Your task to perform on an android device: How do I get to the nearest Verizon Store? Image 0: 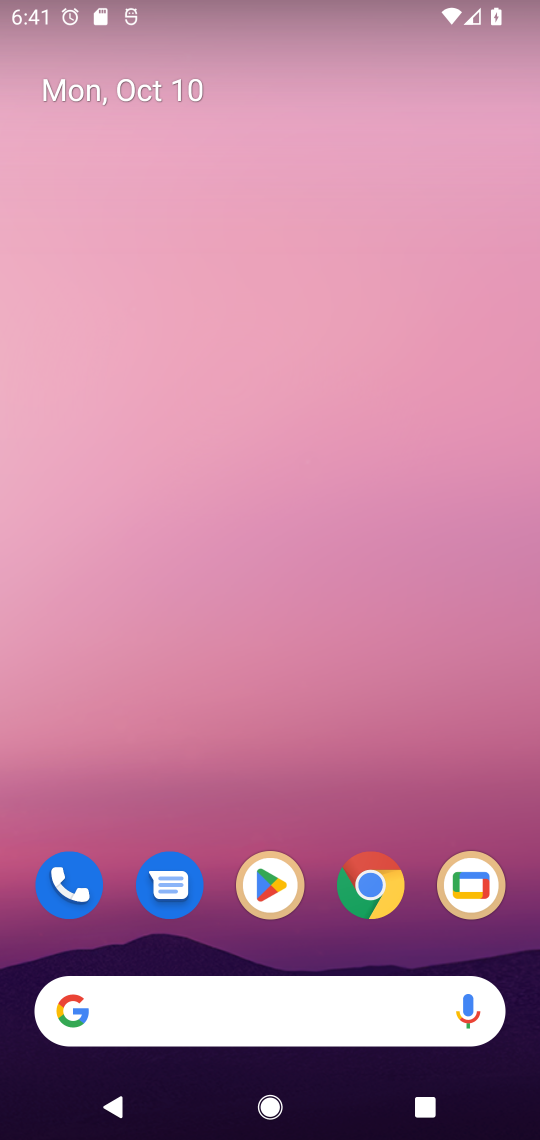
Step 0: click (366, 893)
Your task to perform on an android device: How do I get to the nearest Verizon Store? Image 1: 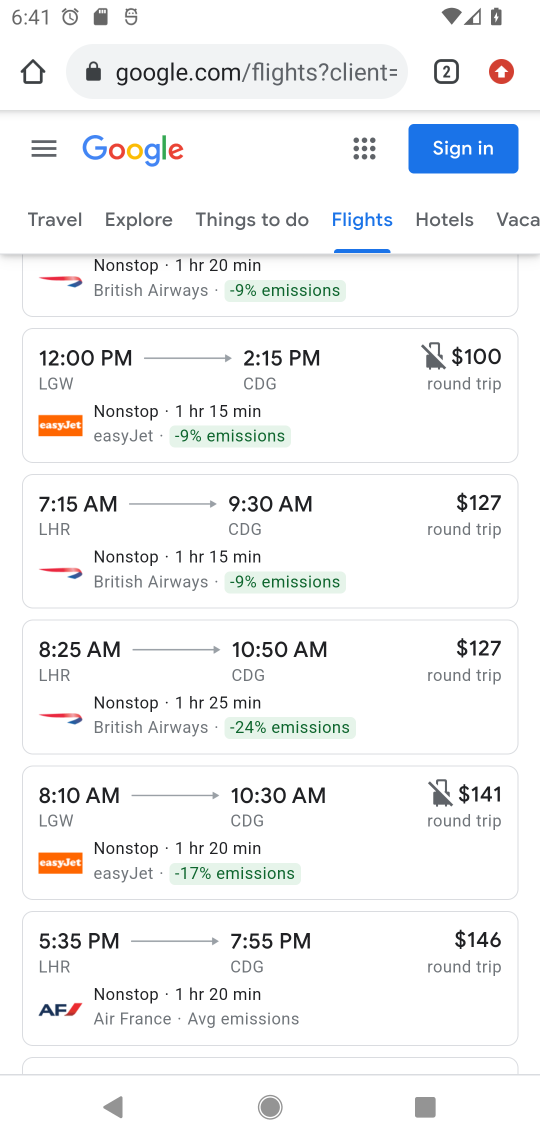
Step 1: click (209, 71)
Your task to perform on an android device: How do I get to the nearest Verizon Store? Image 2: 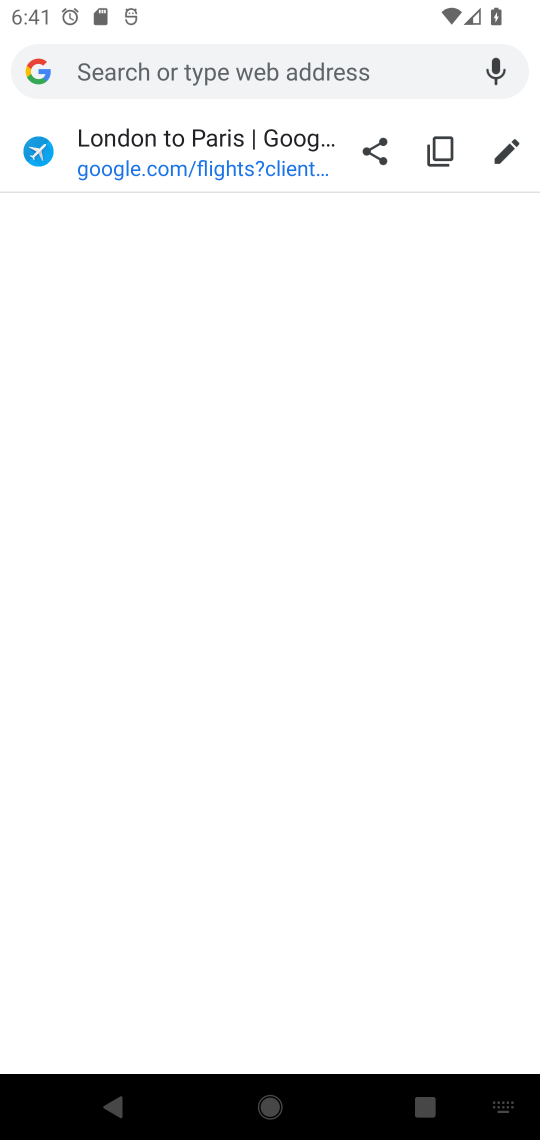
Step 2: type "nearest Verizon Store"
Your task to perform on an android device: How do I get to the nearest Verizon Store? Image 3: 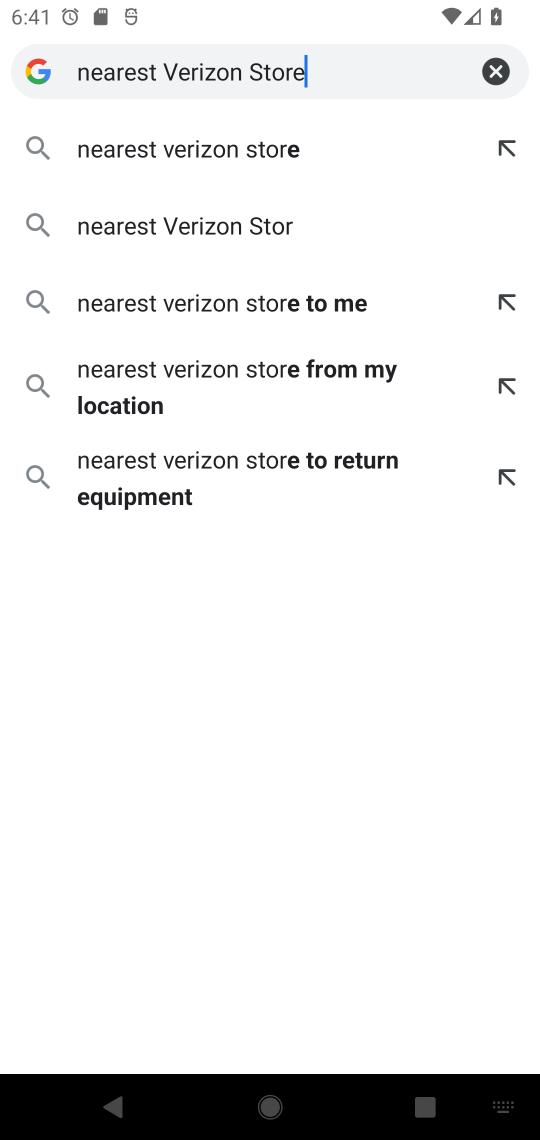
Step 3: type ""
Your task to perform on an android device: How do I get to the nearest Verizon Store? Image 4: 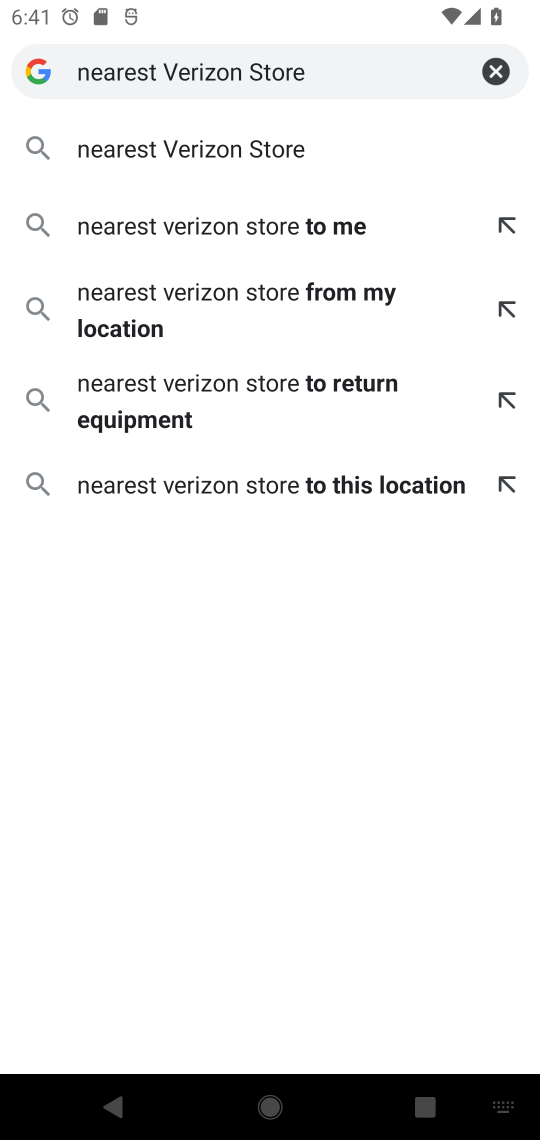
Step 4: click (211, 154)
Your task to perform on an android device: How do I get to the nearest Verizon Store? Image 5: 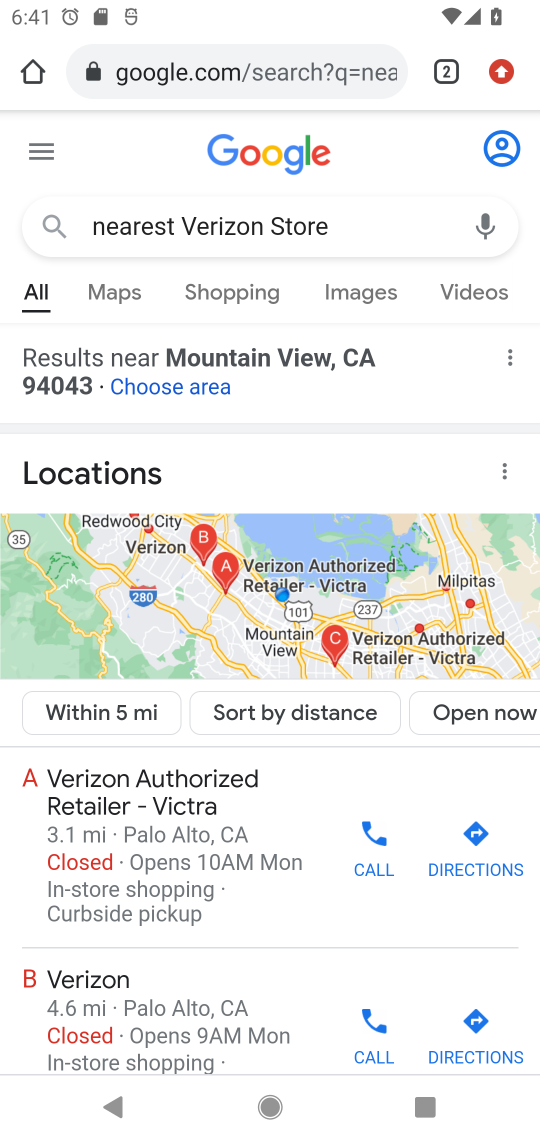
Step 5: drag from (320, 934) to (262, 455)
Your task to perform on an android device: How do I get to the nearest Verizon Store? Image 6: 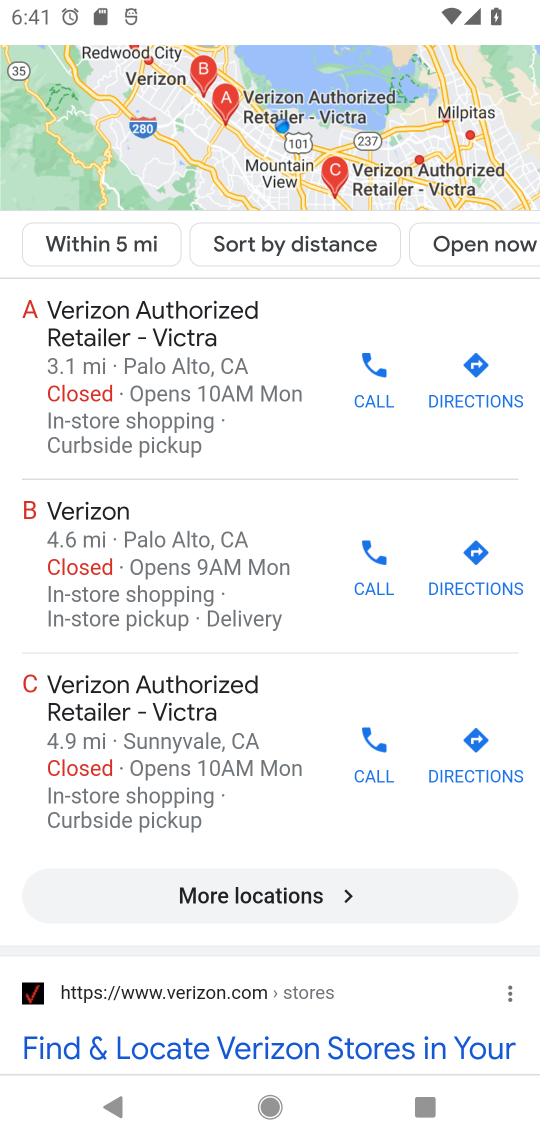
Step 6: click (279, 886)
Your task to perform on an android device: How do I get to the nearest Verizon Store? Image 7: 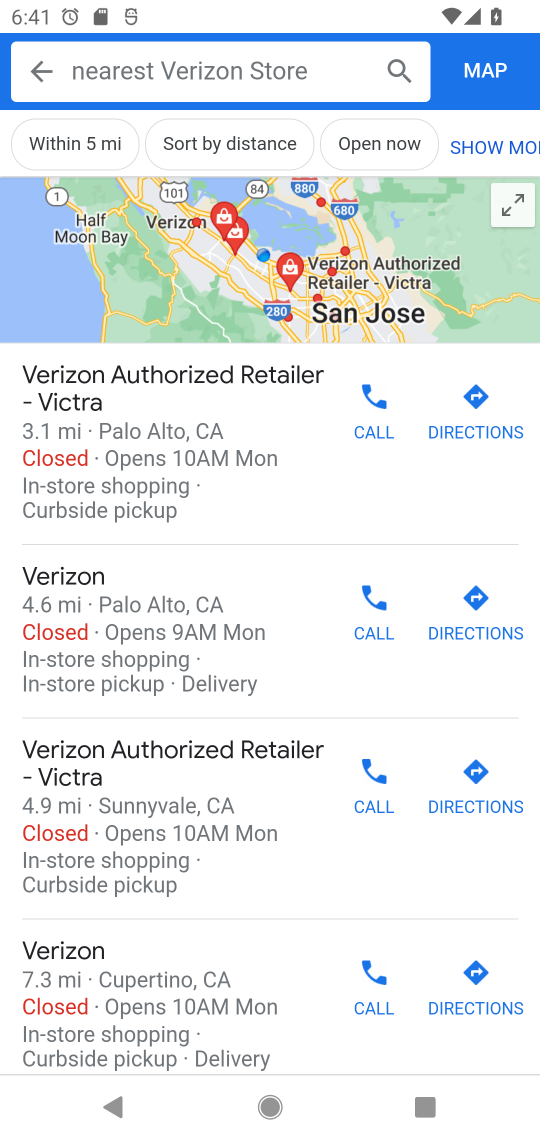
Step 7: task complete